Your task to perform on an android device: Go to Wikipedia Image 0: 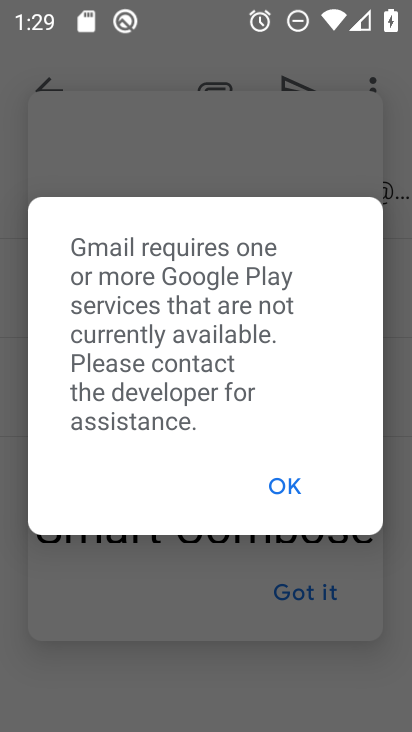
Step 0: press home button
Your task to perform on an android device: Go to Wikipedia Image 1: 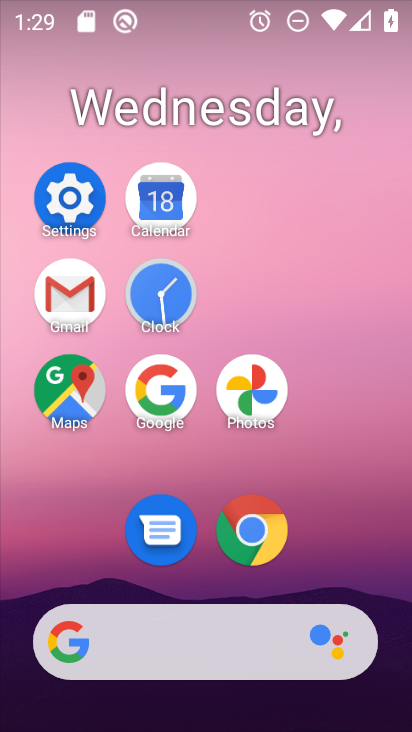
Step 1: click (244, 546)
Your task to perform on an android device: Go to Wikipedia Image 2: 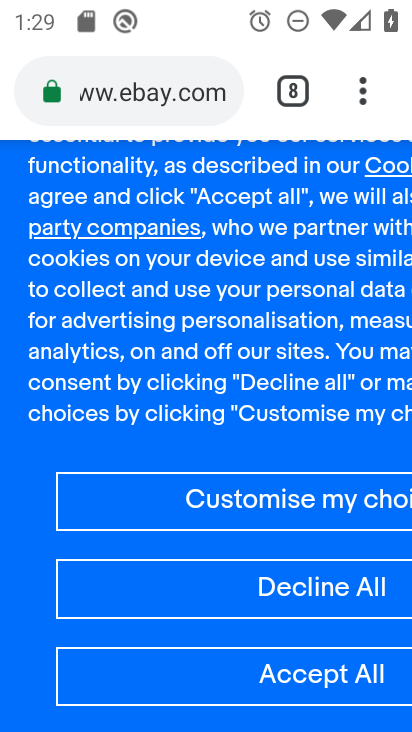
Step 2: click (303, 81)
Your task to perform on an android device: Go to Wikipedia Image 3: 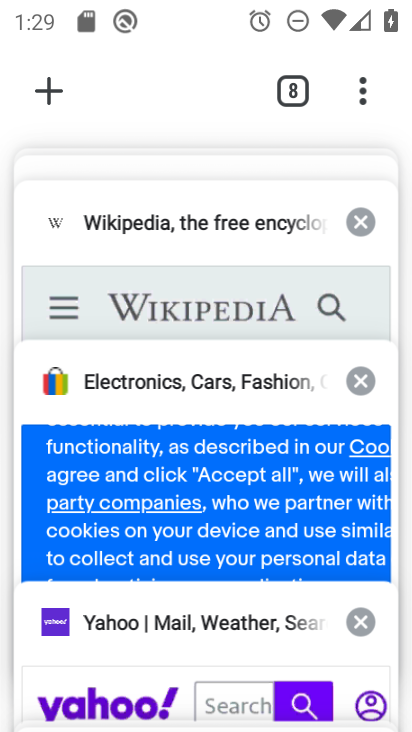
Step 3: click (174, 315)
Your task to perform on an android device: Go to Wikipedia Image 4: 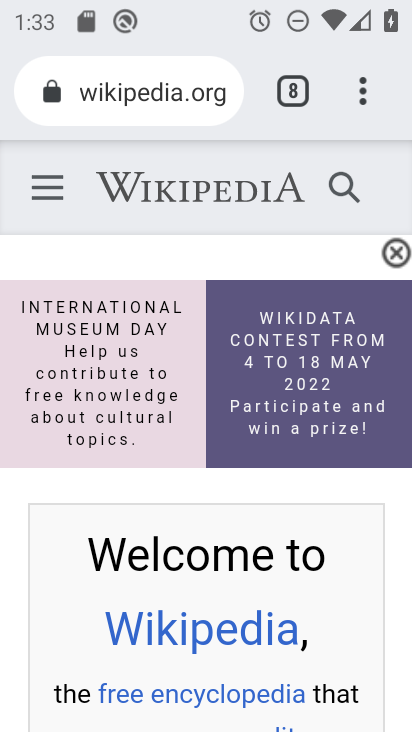
Step 4: task complete